Your task to perform on an android device: check out phone information Image 0: 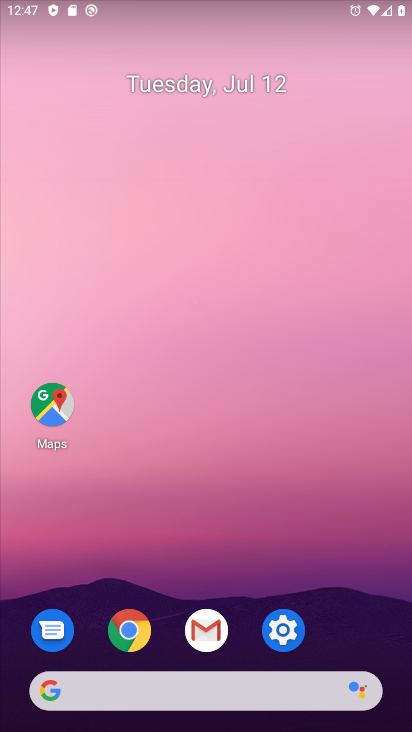
Step 0: click (297, 624)
Your task to perform on an android device: check out phone information Image 1: 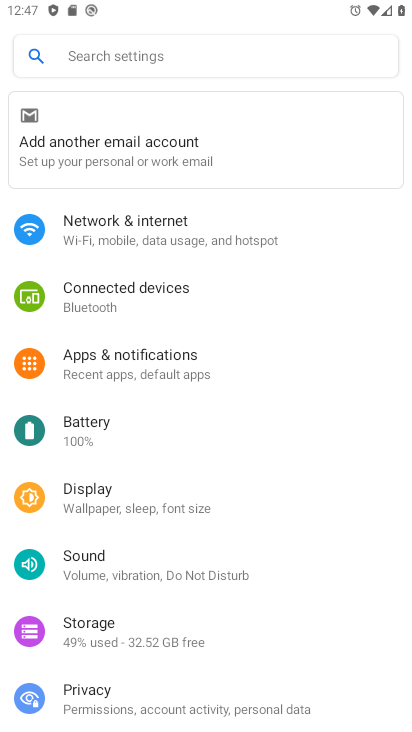
Step 1: click (161, 69)
Your task to perform on an android device: check out phone information Image 2: 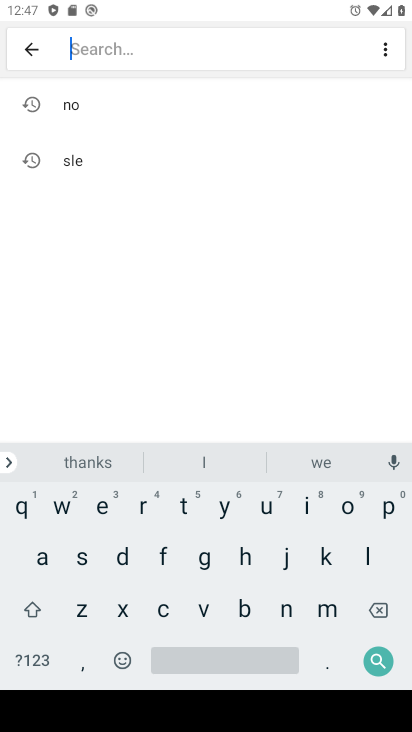
Step 2: click (32, 560)
Your task to perform on an android device: check out phone information Image 3: 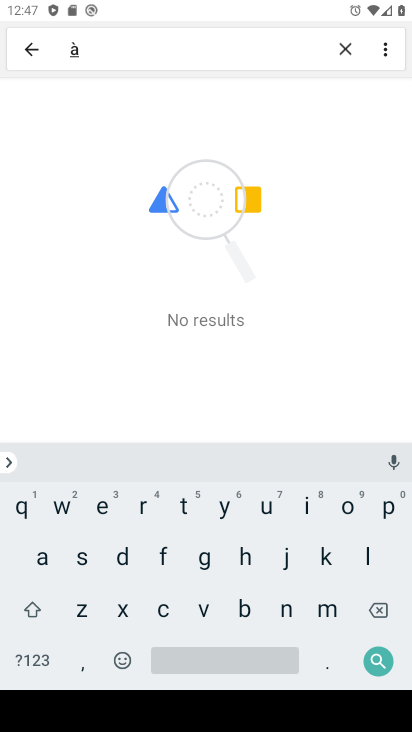
Step 3: click (243, 615)
Your task to perform on an android device: check out phone information Image 4: 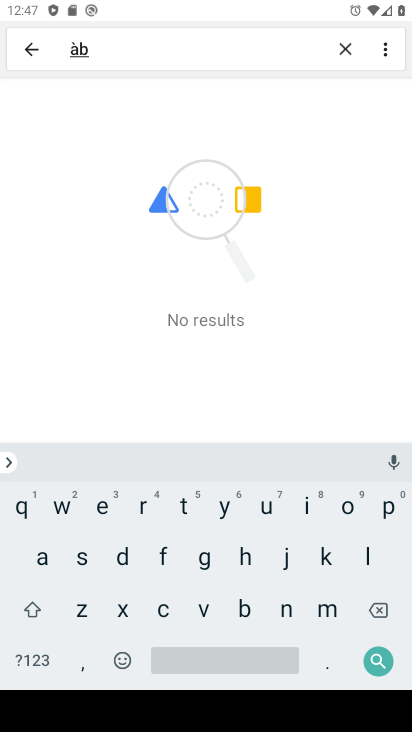
Step 4: click (341, 55)
Your task to perform on an android device: check out phone information Image 5: 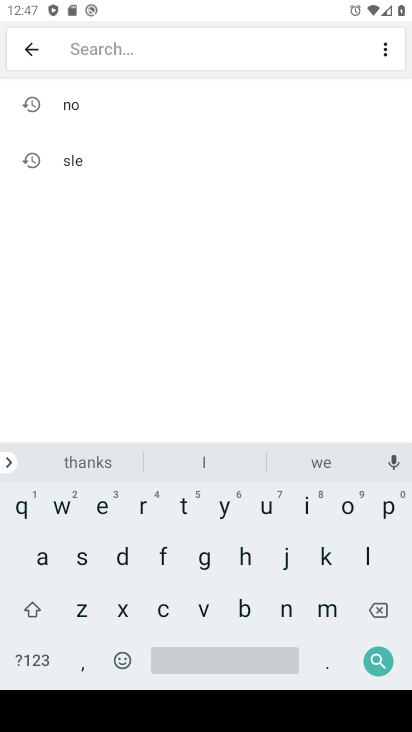
Step 5: click (43, 555)
Your task to perform on an android device: check out phone information Image 6: 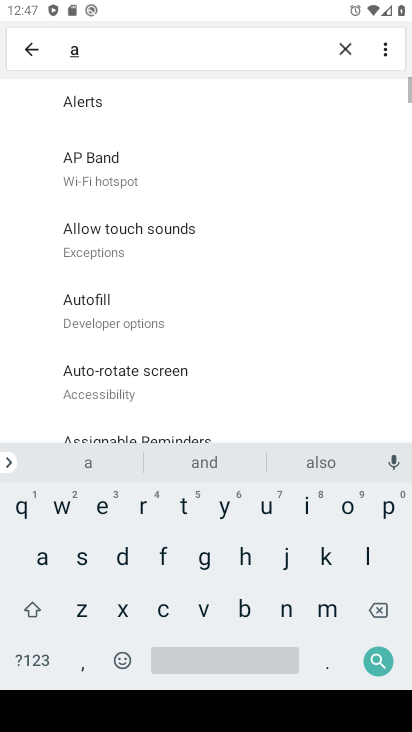
Step 6: click (246, 616)
Your task to perform on an android device: check out phone information Image 7: 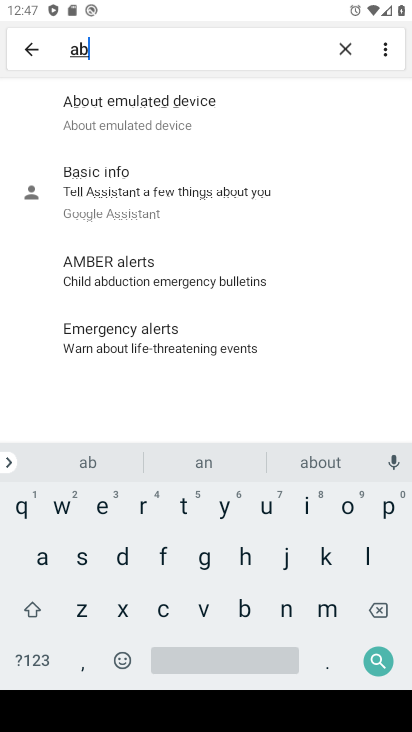
Step 7: click (131, 98)
Your task to perform on an android device: check out phone information Image 8: 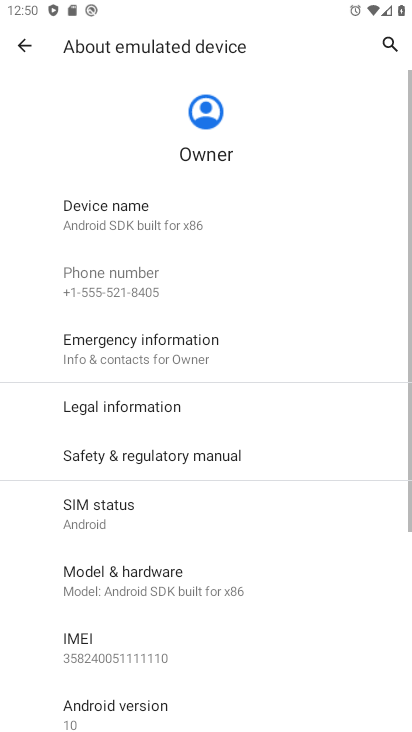
Step 8: task complete